Your task to perform on an android device: turn off javascript in the chrome app Image 0: 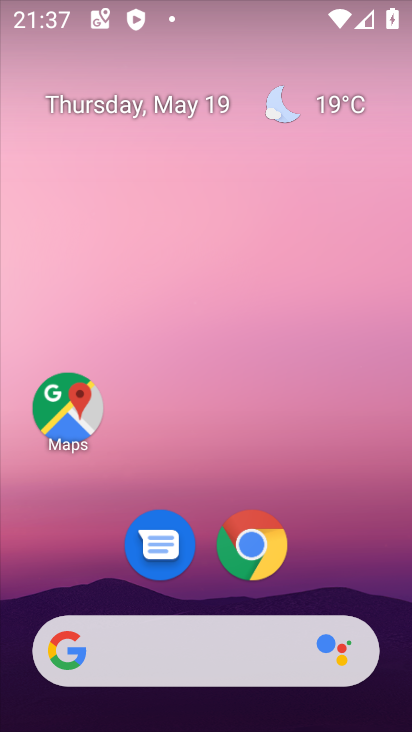
Step 0: click (221, 553)
Your task to perform on an android device: turn off javascript in the chrome app Image 1: 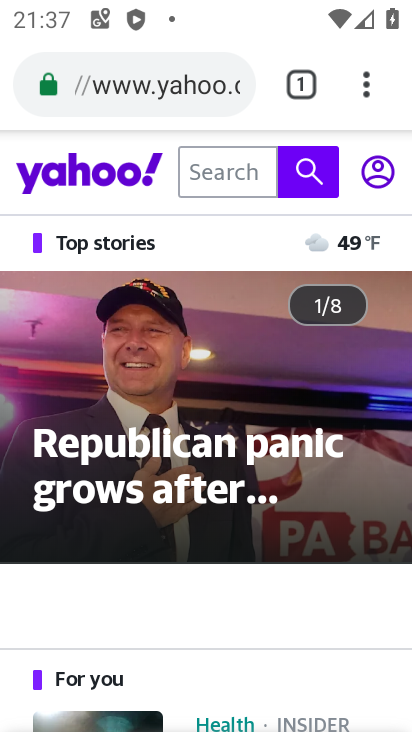
Step 1: click (372, 85)
Your task to perform on an android device: turn off javascript in the chrome app Image 2: 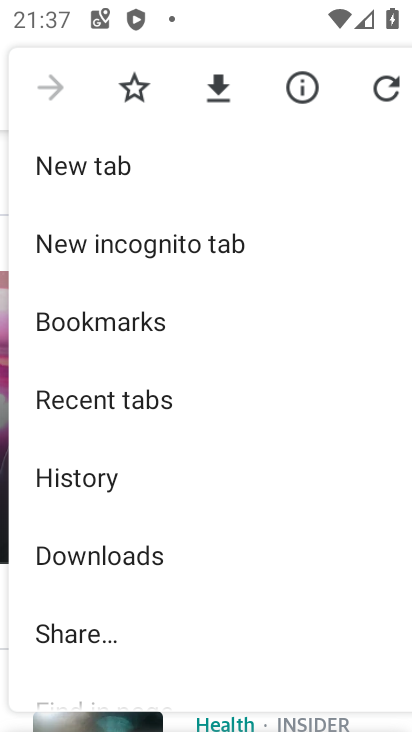
Step 2: drag from (133, 572) to (141, 251)
Your task to perform on an android device: turn off javascript in the chrome app Image 3: 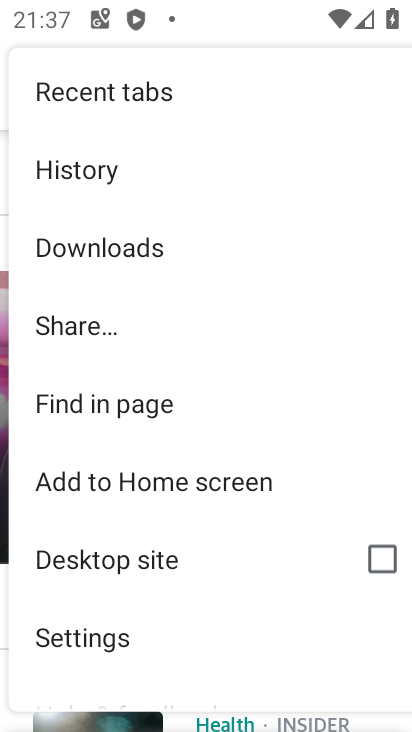
Step 3: click (160, 662)
Your task to perform on an android device: turn off javascript in the chrome app Image 4: 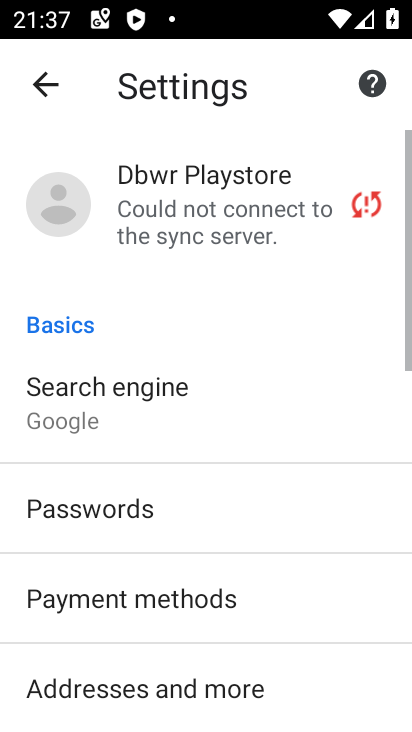
Step 4: drag from (161, 577) to (163, 175)
Your task to perform on an android device: turn off javascript in the chrome app Image 5: 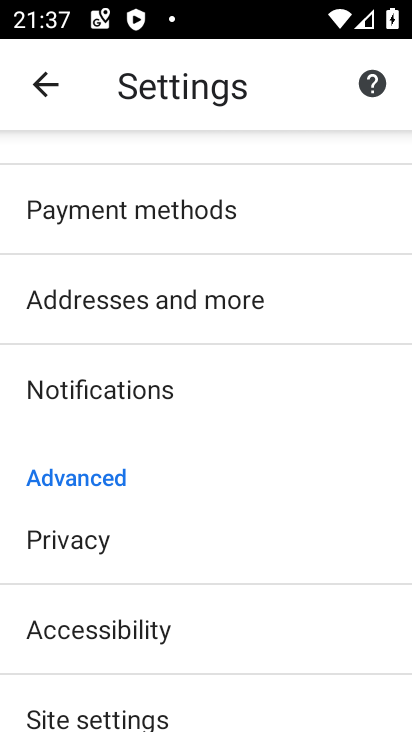
Step 5: drag from (197, 604) to (197, 272)
Your task to perform on an android device: turn off javascript in the chrome app Image 6: 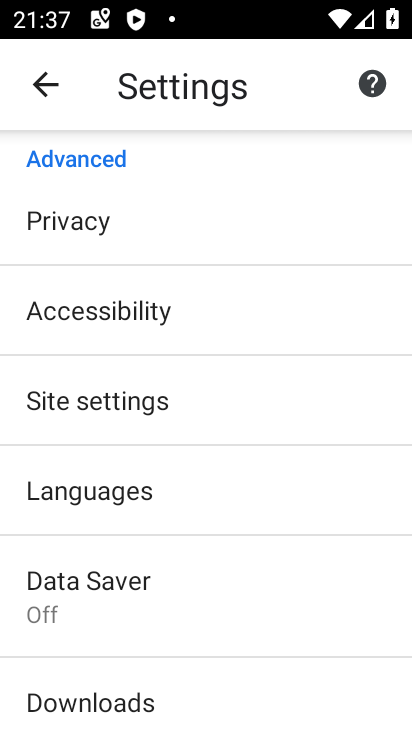
Step 6: click (156, 413)
Your task to perform on an android device: turn off javascript in the chrome app Image 7: 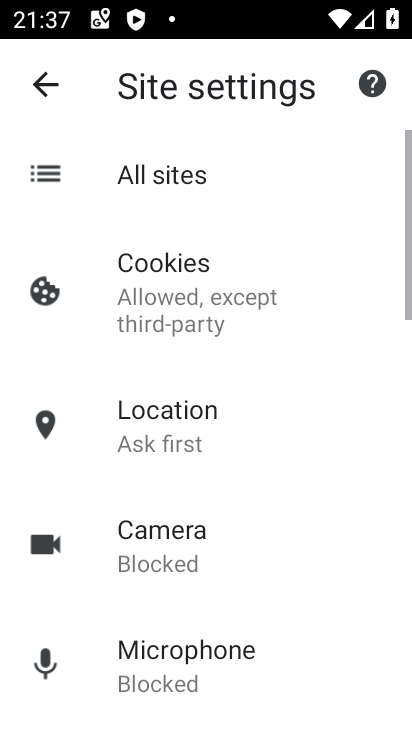
Step 7: drag from (202, 578) to (189, 242)
Your task to perform on an android device: turn off javascript in the chrome app Image 8: 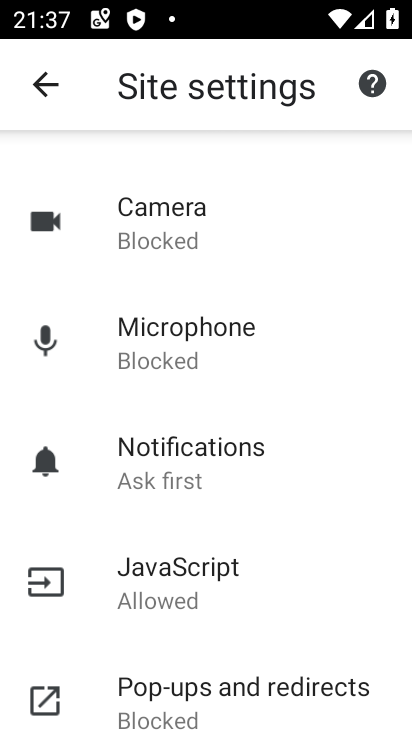
Step 8: click (218, 602)
Your task to perform on an android device: turn off javascript in the chrome app Image 9: 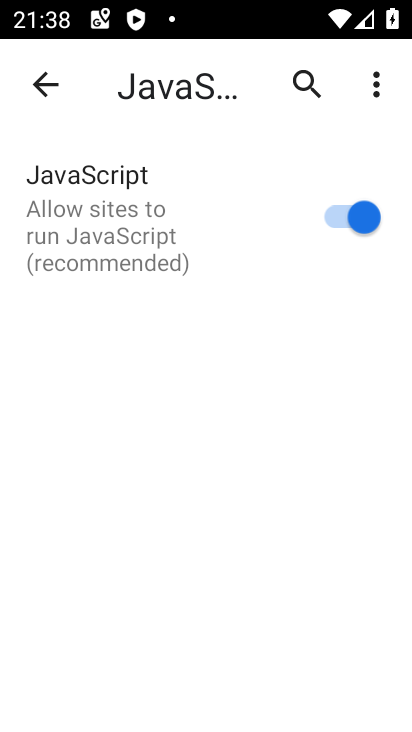
Step 9: click (350, 198)
Your task to perform on an android device: turn off javascript in the chrome app Image 10: 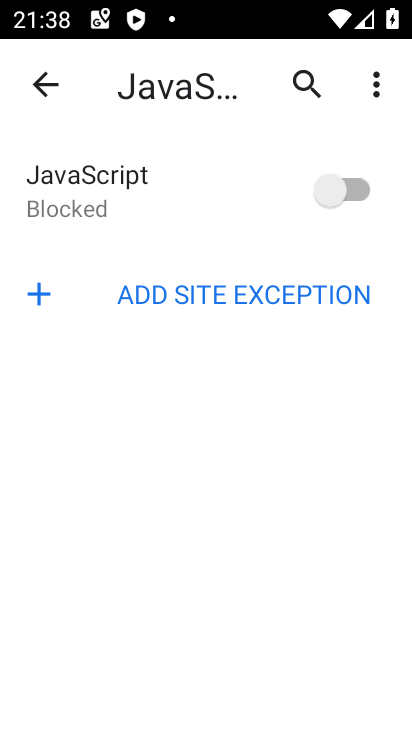
Step 10: task complete